Your task to perform on an android device: change text size in settings app Image 0: 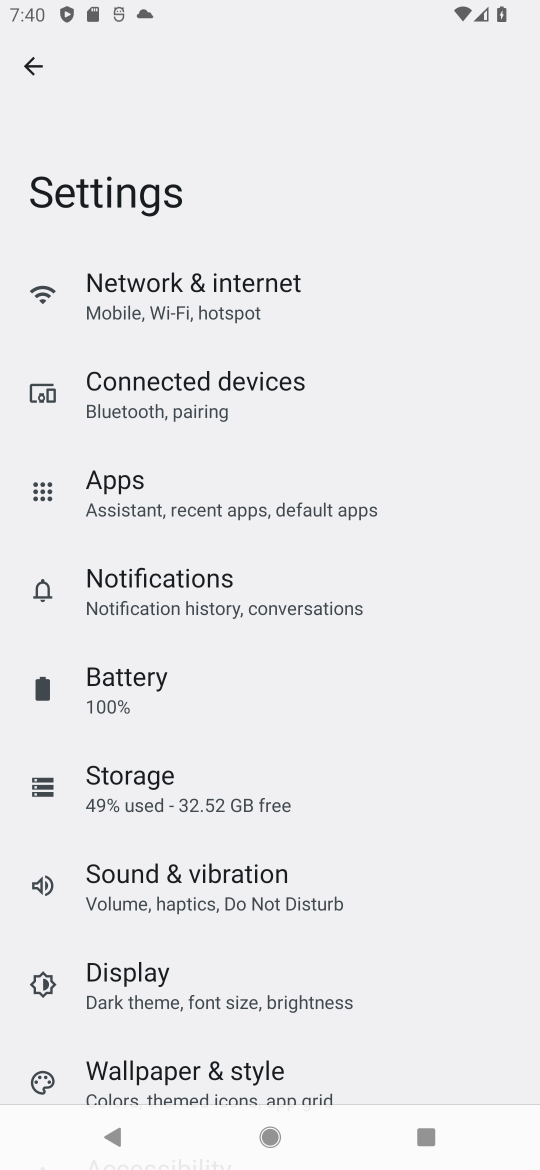
Step 0: click (284, 985)
Your task to perform on an android device: change text size in settings app Image 1: 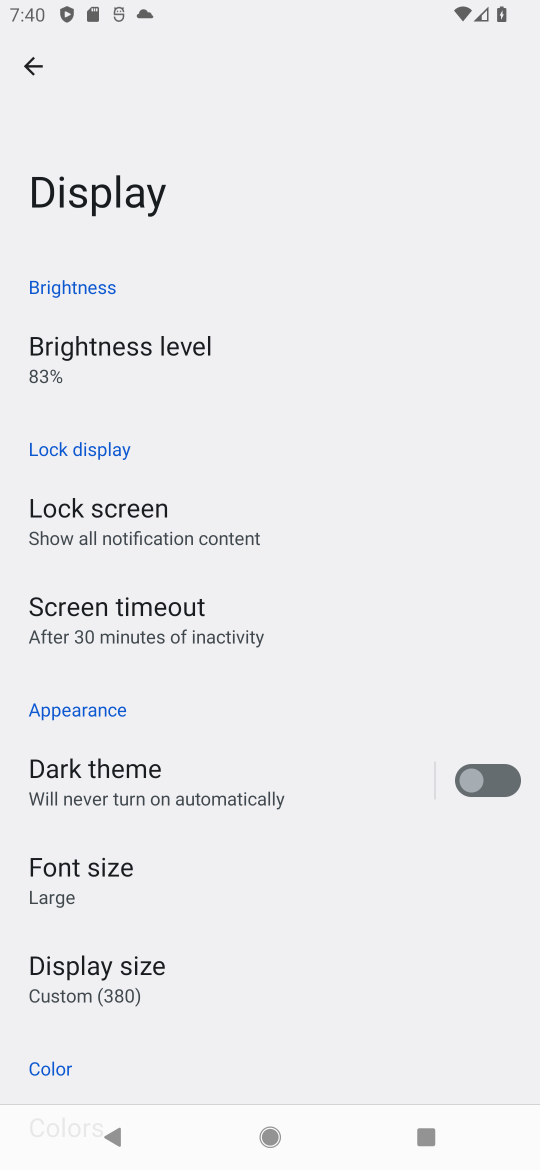
Step 1: click (155, 884)
Your task to perform on an android device: change text size in settings app Image 2: 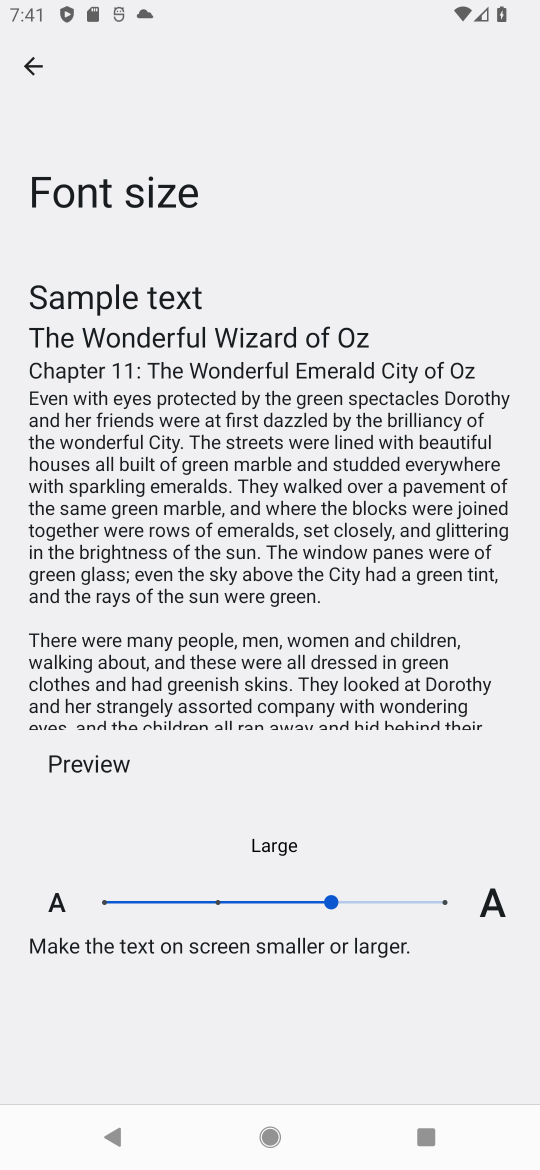
Step 2: click (207, 907)
Your task to perform on an android device: change text size in settings app Image 3: 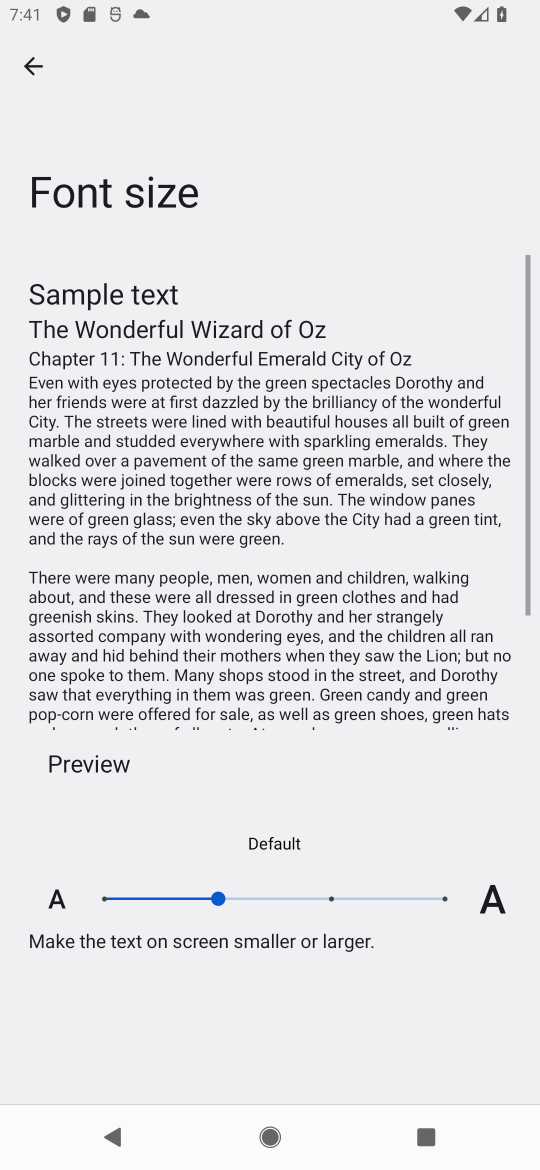
Step 3: task complete